Your task to perform on an android device: all mails in gmail Image 0: 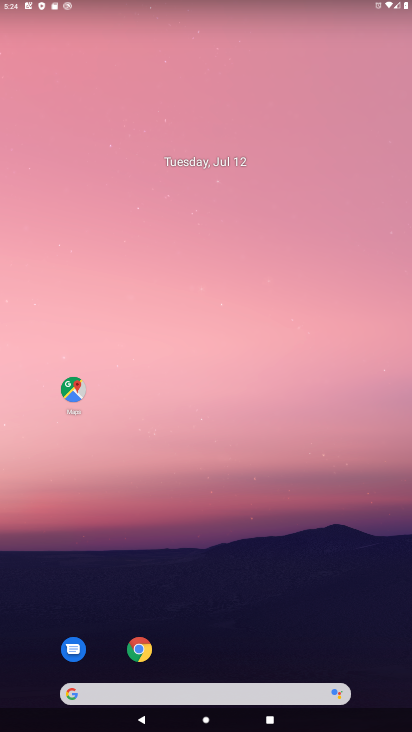
Step 0: drag from (214, 691) to (190, 188)
Your task to perform on an android device: all mails in gmail Image 1: 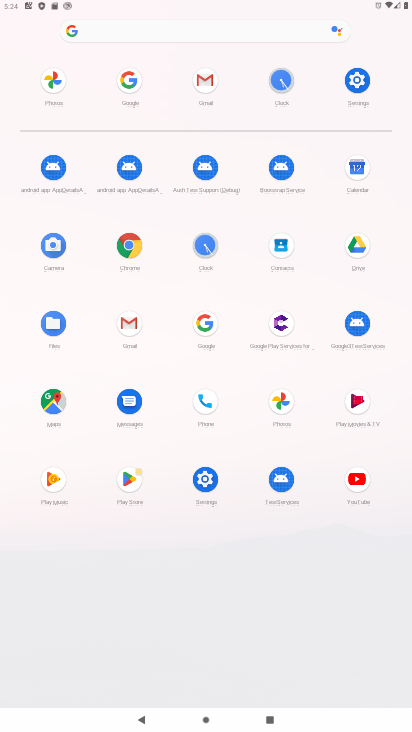
Step 1: click (203, 78)
Your task to perform on an android device: all mails in gmail Image 2: 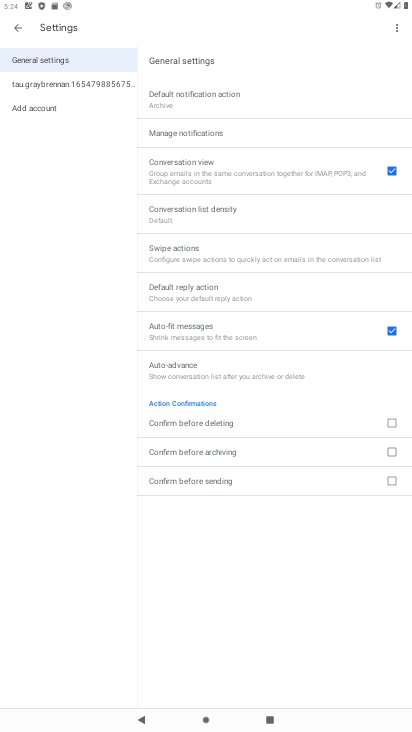
Step 2: press back button
Your task to perform on an android device: all mails in gmail Image 3: 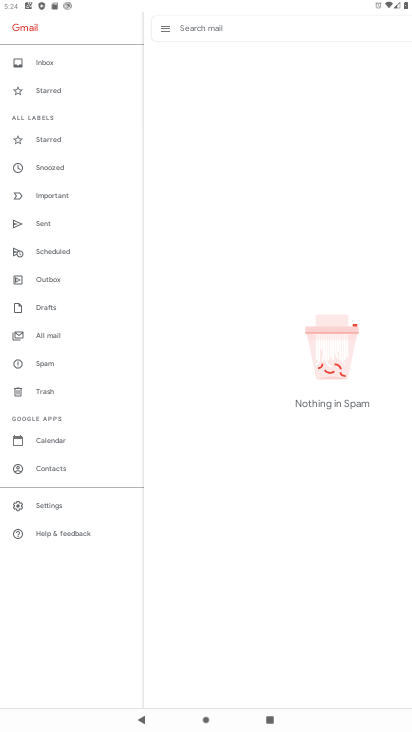
Step 3: click (41, 336)
Your task to perform on an android device: all mails in gmail Image 4: 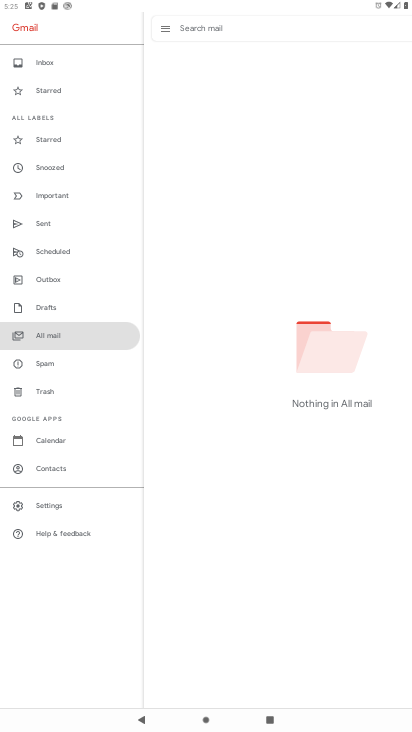
Step 4: click (44, 66)
Your task to perform on an android device: all mails in gmail Image 5: 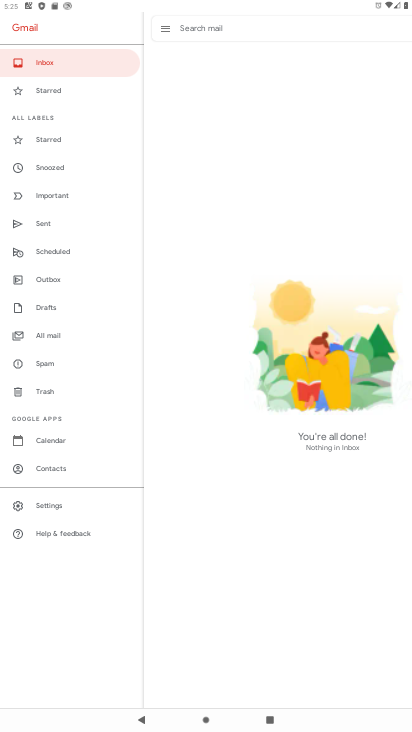
Step 5: click (39, 303)
Your task to perform on an android device: all mails in gmail Image 6: 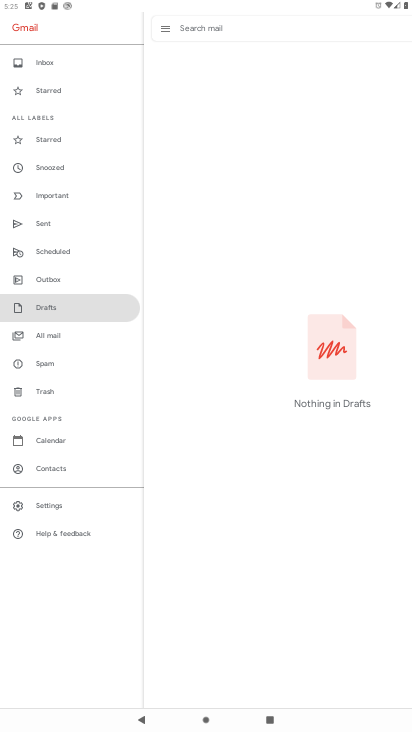
Step 6: click (42, 275)
Your task to perform on an android device: all mails in gmail Image 7: 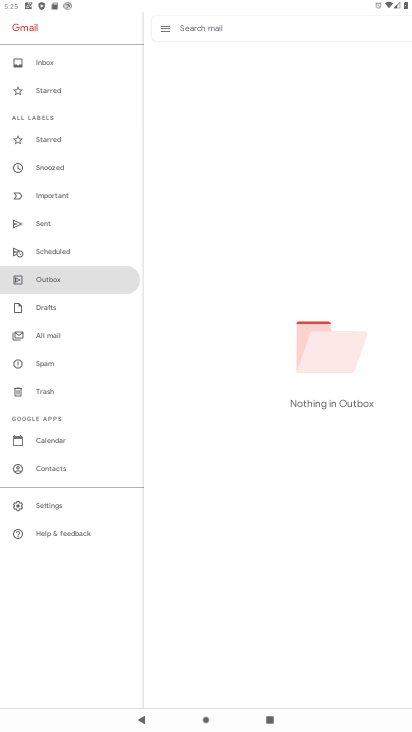
Step 7: click (38, 335)
Your task to perform on an android device: all mails in gmail Image 8: 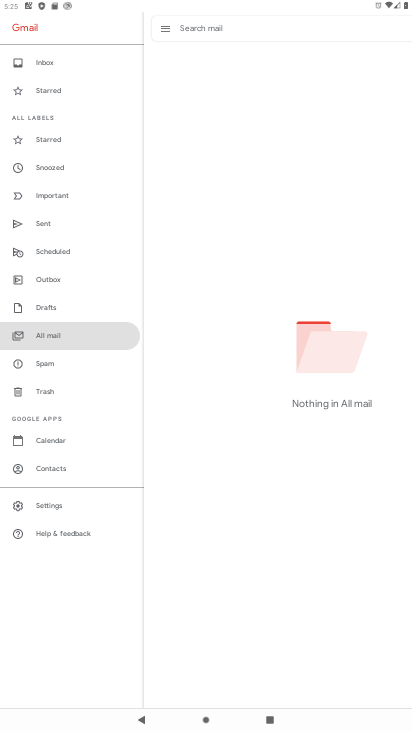
Step 8: task complete